Your task to perform on an android device: Do I have any events tomorrow? Image 0: 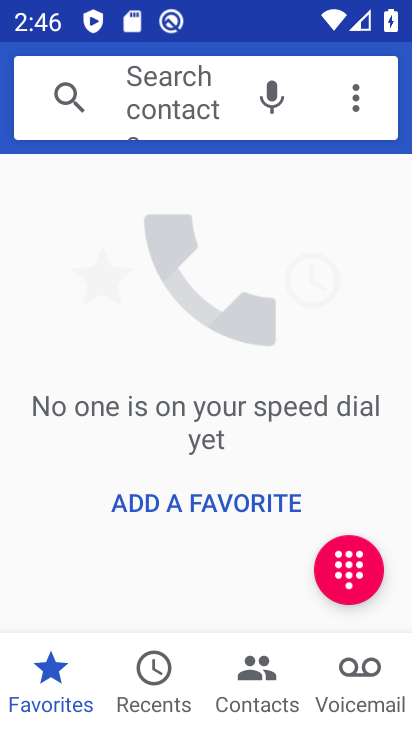
Step 0: press home button
Your task to perform on an android device: Do I have any events tomorrow? Image 1: 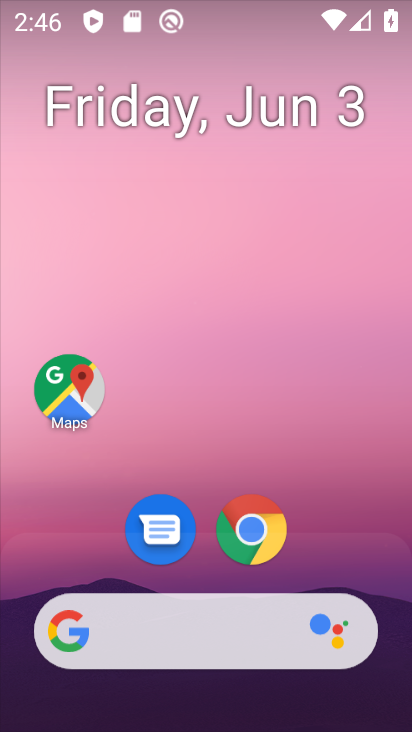
Step 1: drag from (392, 673) to (339, 120)
Your task to perform on an android device: Do I have any events tomorrow? Image 2: 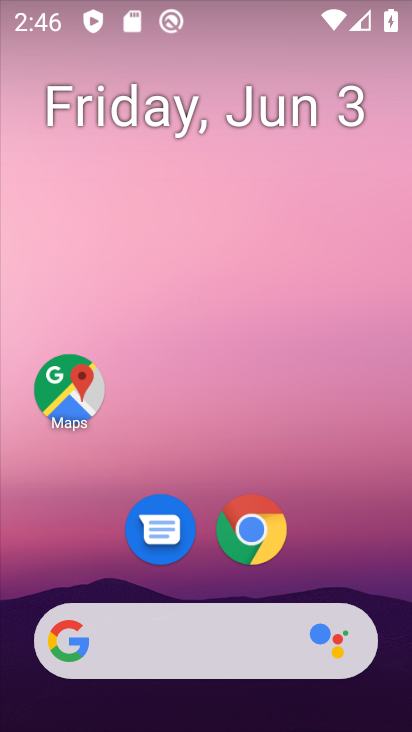
Step 2: drag from (381, 527) to (293, 90)
Your task to perform on an android device: Do I have any events tomorrow? Image 3: 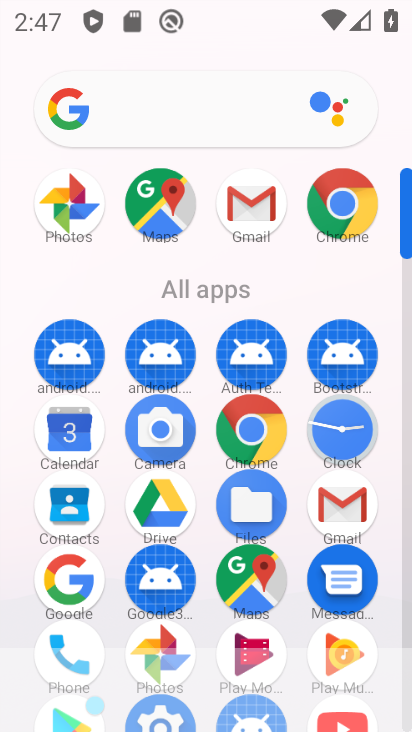
Step 3: drag from (205, 627) to (165, 365)
Your task to perform on an android device: Do I have any events tomorrow? Image 4: 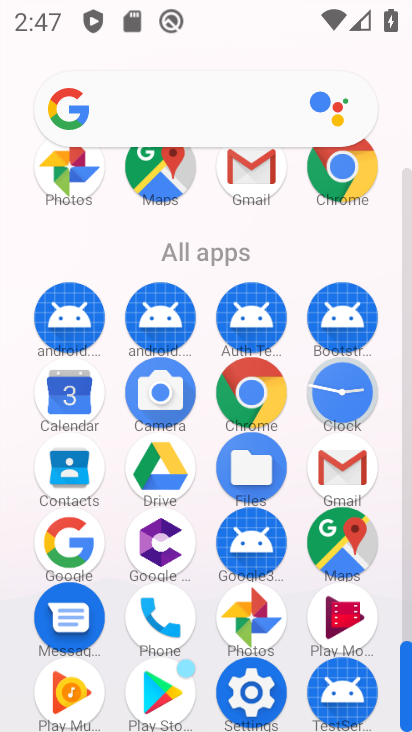
Step 4: click (72, 398)
Your task to perform on an android device: Do I have any events tomorrow? Image 5: 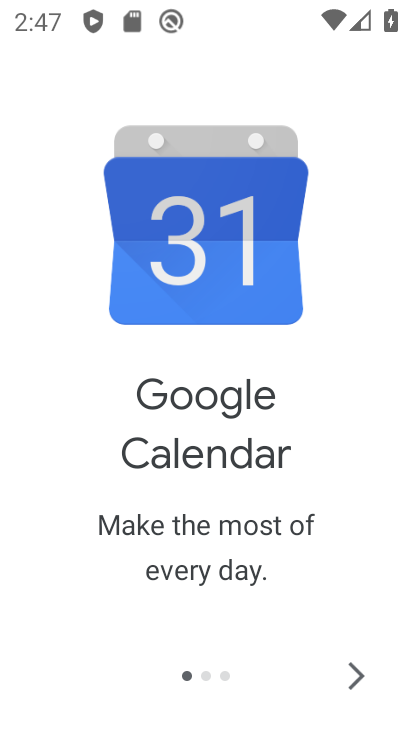
Step 5: click (366, 673)
Your task to perform on an android device: Do I have any events tomorrow? Image 6: 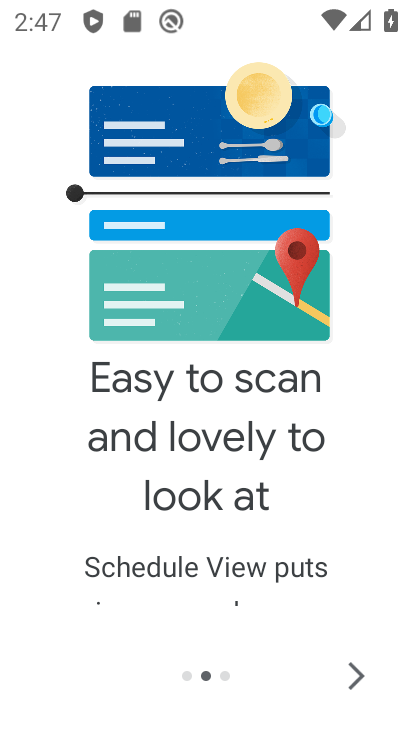
Step 6: click (351, 675)
Your task to perform on an android device: Do I have any events tomorrow? Image 7: 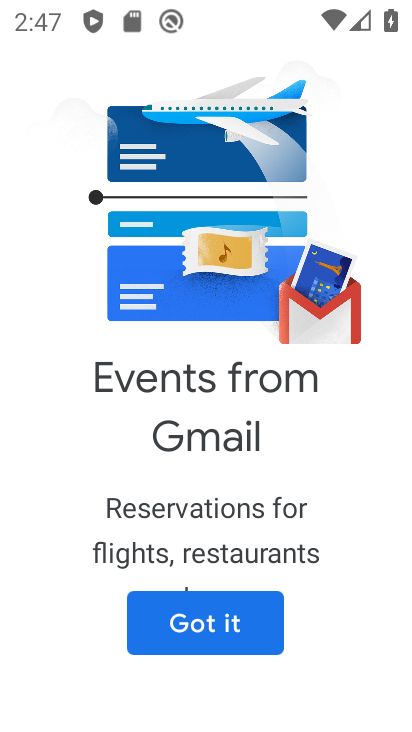
Step 7: click (247, 599)
Your task to perform on an android device: Do I have any events tomorrow? Image 8: 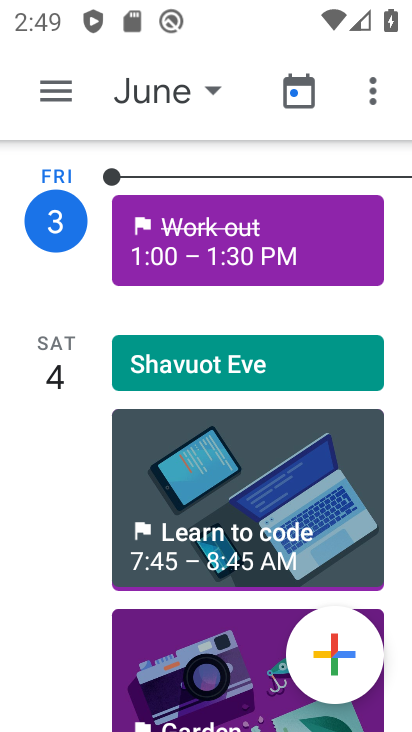
Step 8: click (64, 92)
Your task to perform on an android device: Do I have any events tomorrow? Image 9: 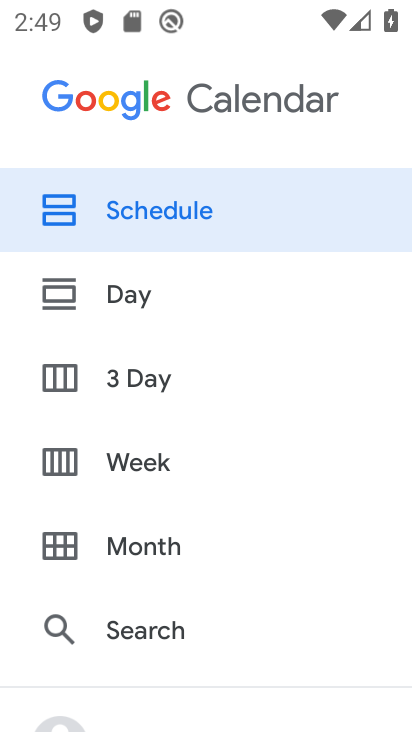
Step 9: click (140, 289)
Your task to perform on an android device: Do I have any events tomorrow? Image 10: 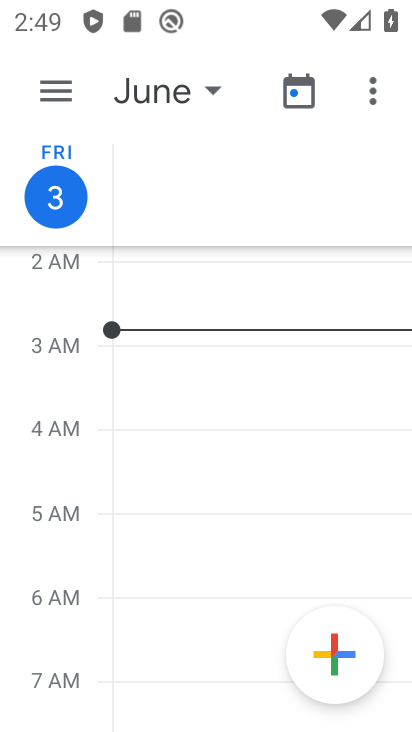
Step 10: click (205, 90)
Your task to perform on an android device: Do I have any events tomorrow? Image 11: 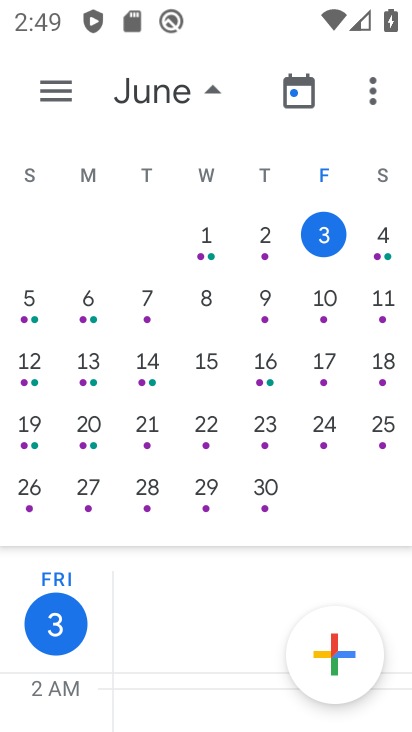
Step 11: click (387, 229)
Your task to perform on an android device: Do I have any events tomorrow? Image 12: 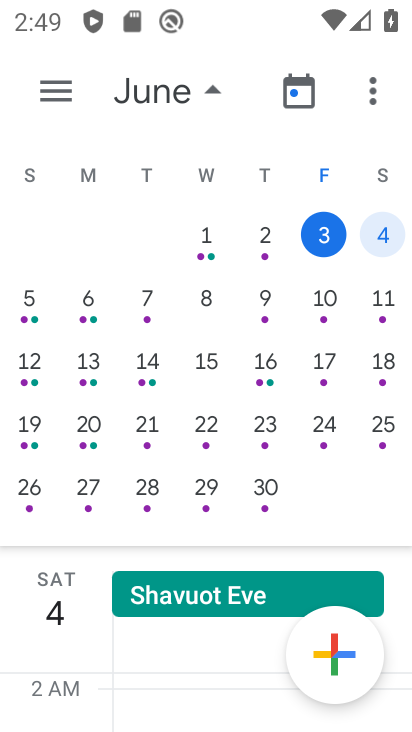
Step 12: click (58, 94)
Your task to perform on an android device: Do I have any events tomorrow? Image 13: 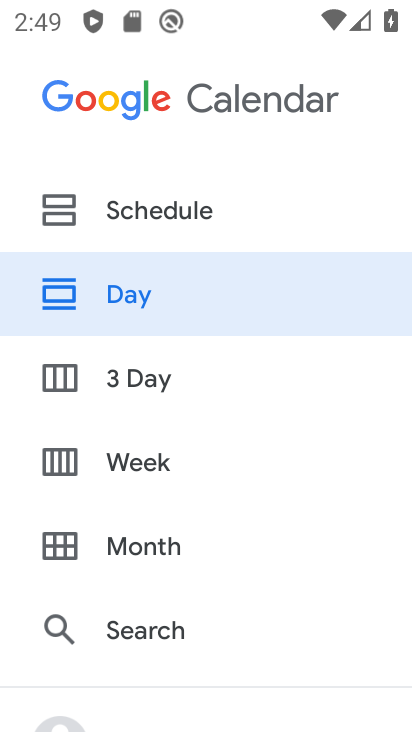
Step 13: click (83, 292)
Your task to perform on an android device: Do I have any events tomorrow? Image 14: 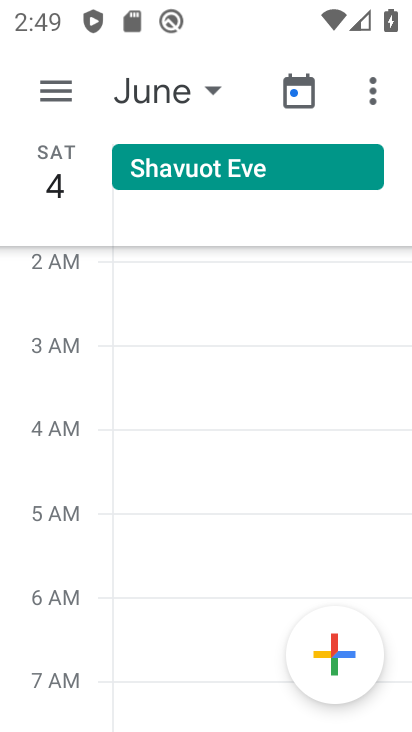
Step 14: task complete